Your task to perform on an android device: What's the weather going to be tomorrow? Image 0: 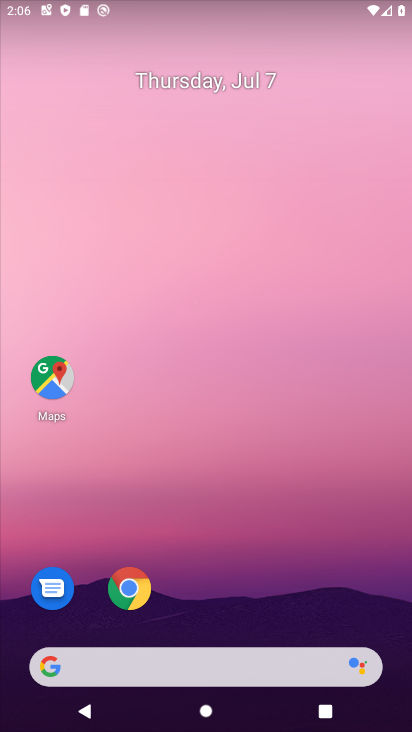
Step 0: click (133, 671)
Your task to perform on an android device: What's the weather going to be tomorrow? Image 1: 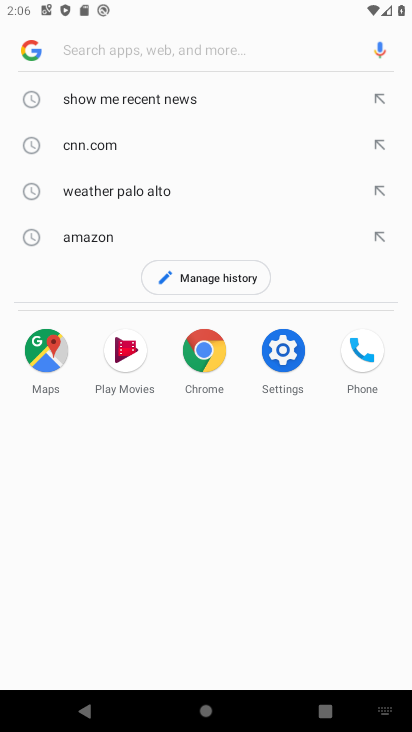
Step 1: click (89, 43)
Your task to perform on an android device: What's the weather going to be tomorrow? Image 2: 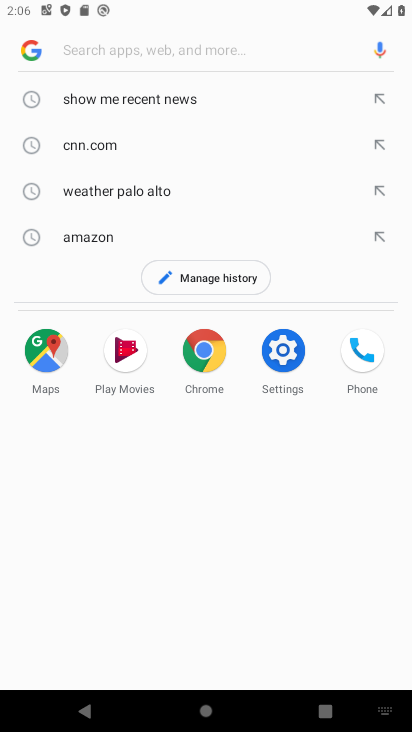
Step 2: type "What's the weather going to be tomorrow?"
Your task to perform on an android device: What's the weather going to be tomorrow? Image 3: 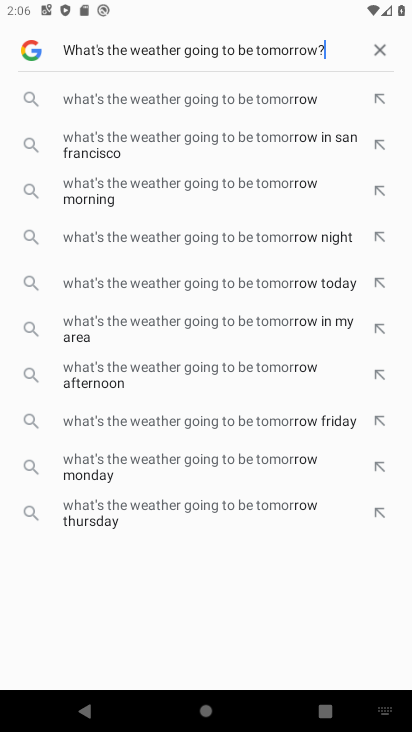
Step 3: type ""
Your task to perform on an android device: What's the weather going to be tomorrow? Image 4: 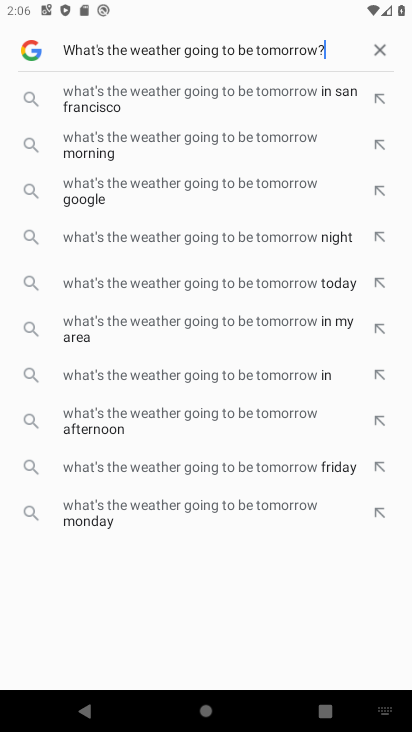
Step 4: type "   "
Your task to perform on an android device: What's the weather going to be tomorrow? Image 5: 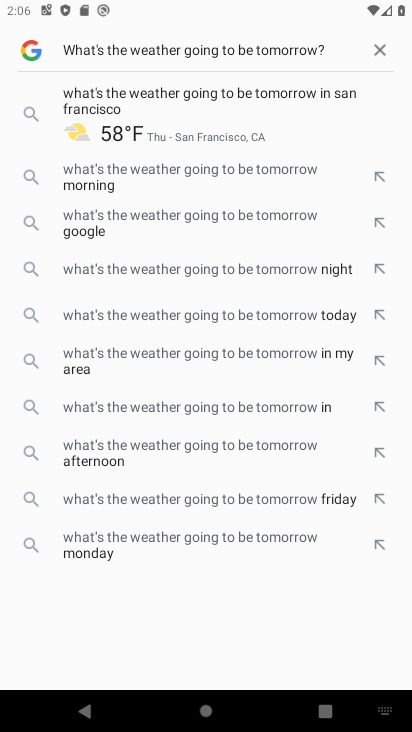
Step 5: task complete